Your task to perform on an android device: What's on my calendar tomorrow? Image 0: 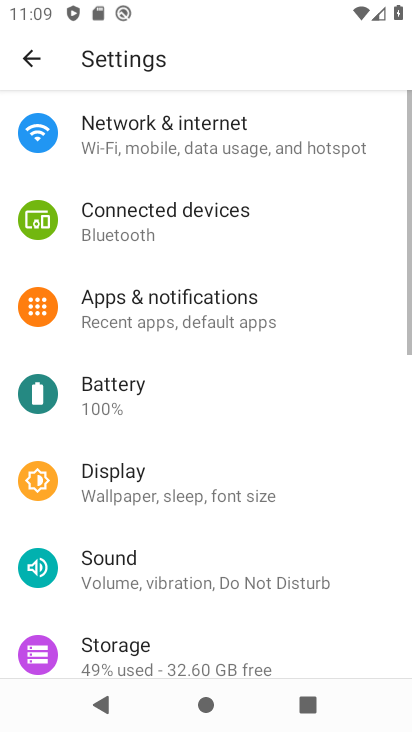
Step 0: press home button
Your task to perform on an android device: What's on my calendar tomorrow? Image 1: 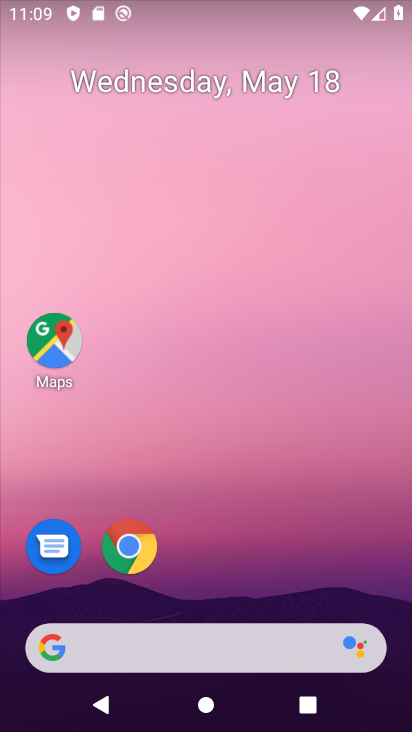
Step 1: drag from (246, 566) to (254, 108)
Your task to perform on an android device: What's on my calendar tomorrow? Image 2: 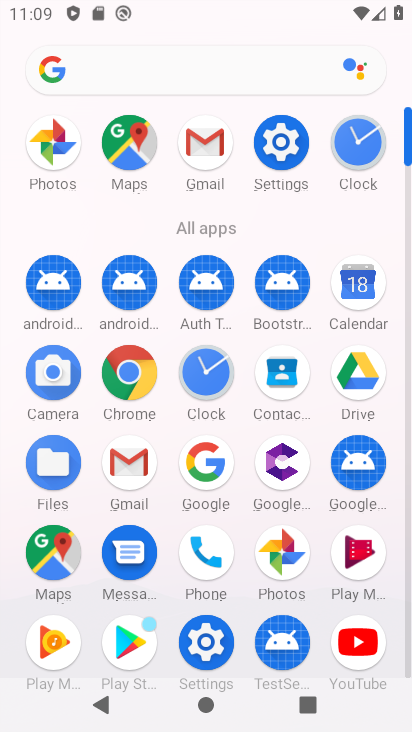
Step 2: click (363, 290)
Your task to perform on an android device: What's on my calendar tomorrow? Image 3: 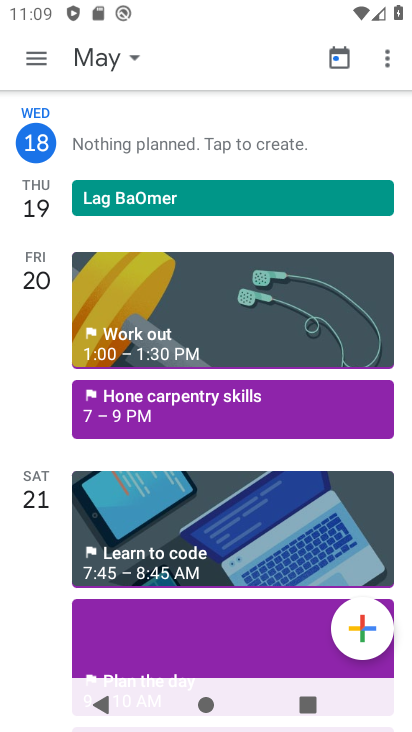
Step 3: click (124, 71)
Your task to perform on an android device: What's on my calendar tomorrow? Image 4: 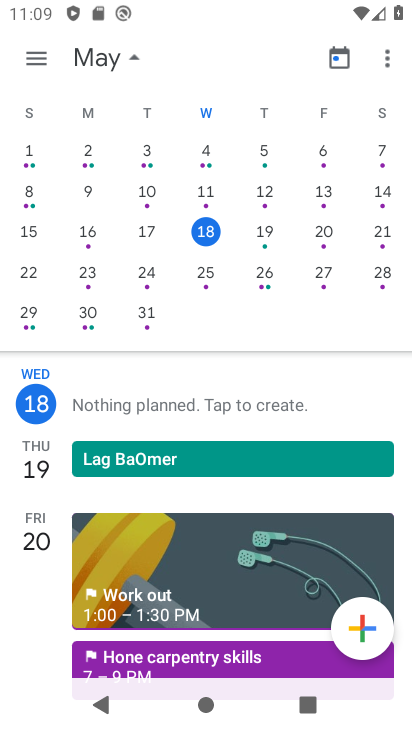
Step 4: click (266, 229)
Your task to perform on an android device: What's on my calendar tomorrow? Image 5: 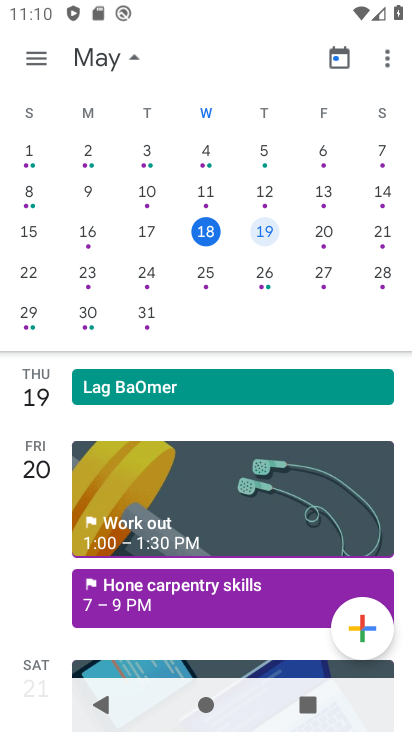
Step 5: task complete